Your task to perform on an android device: toggle notification dots Image 0: 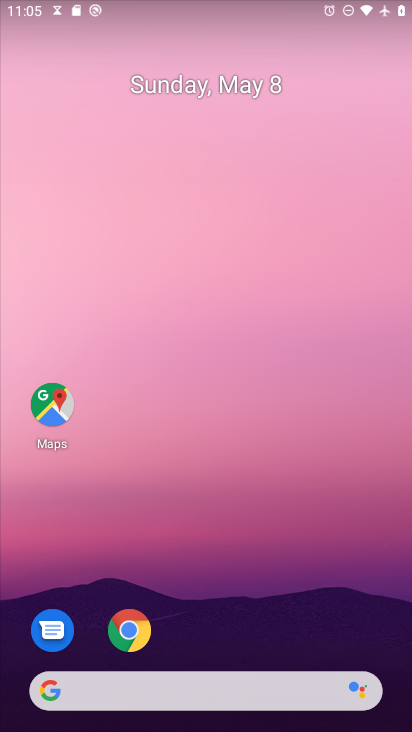
Step 0: drag from (213, 692) to (286, 78)
Your task to perform on an android device: toggle notification dots Image 1: 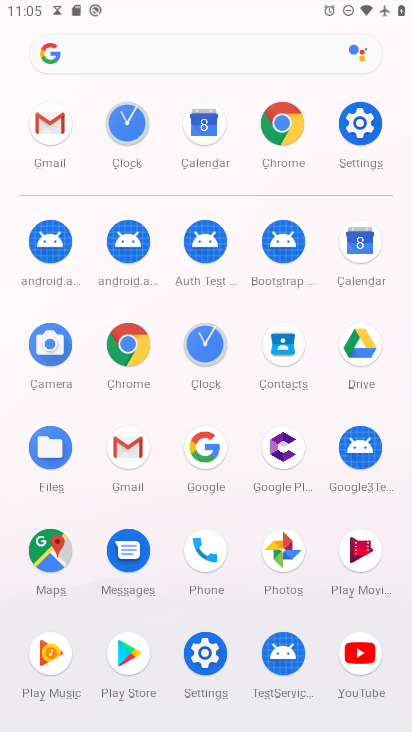
Step 1: click (358, 128)
Your task to perform on an android device: toggle notification dots Image 2: 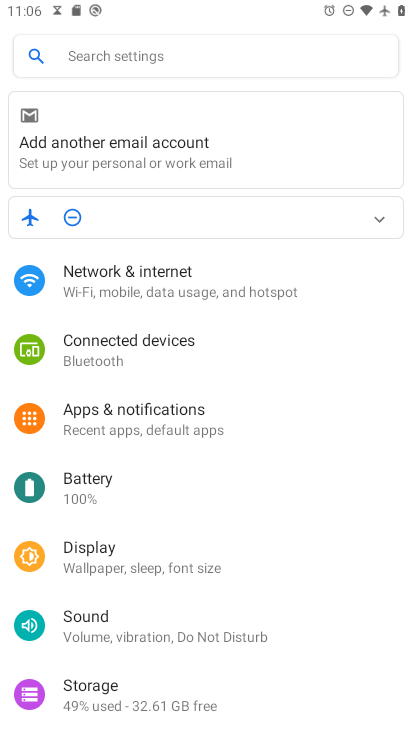
Step 2: click (178, 417)
Your task to perform on an android device: toggle notification dots Image 3: 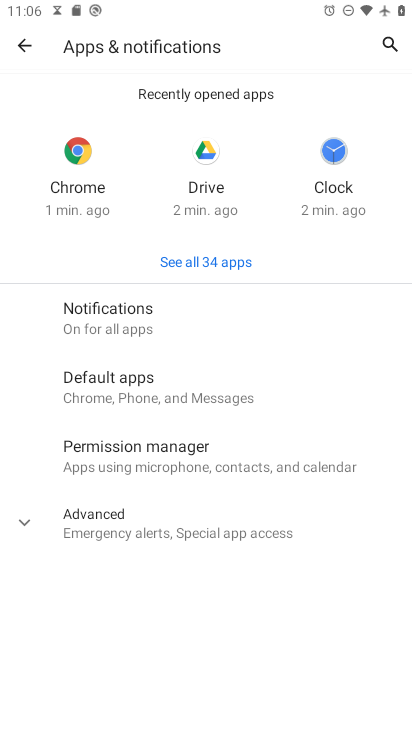
Step 3: click (135, 325)
Your task to perform on an android device: toggle notification dots Image 4: 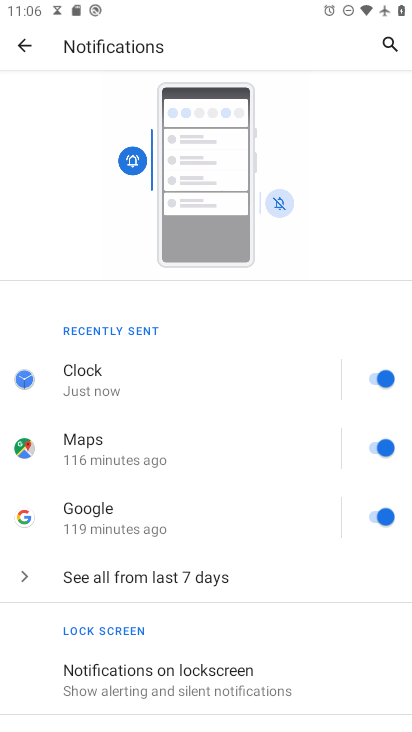
Step 4: drag from (181, 622) to (337, 211)
Your task to perform on an android device: toggle notification dots Image 5: 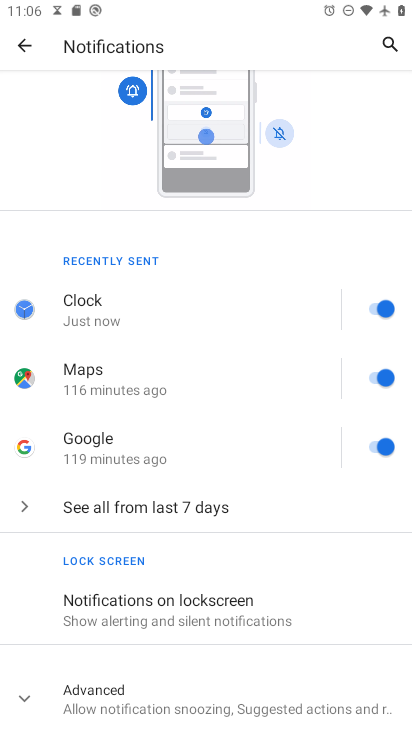
Step 5: click (117, 704)
Your task to perform on an android device: toggle notification dots Image 6: 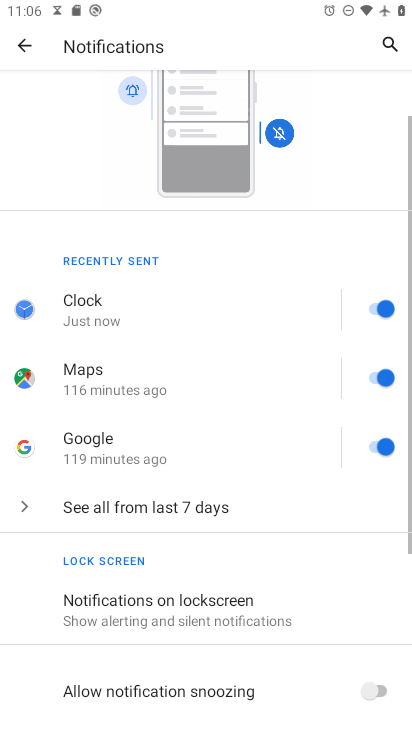
Step 6: drag from (154, 675) to (345, 158)
Your task to perform on an android device: toggle notification dots Image 7: 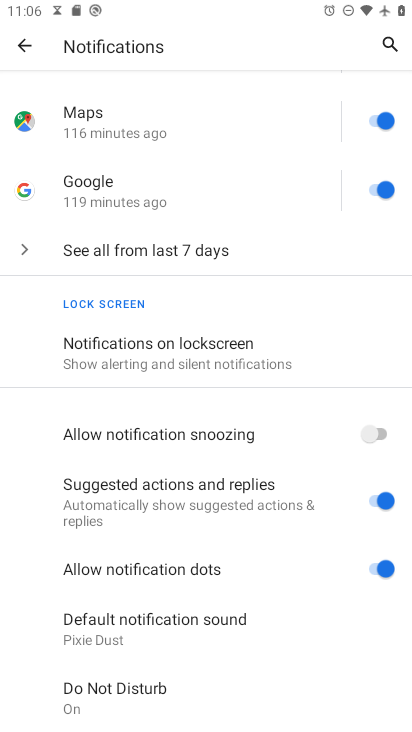
Step 7: click (377, 572)
Your task to perform on an android device: toggle notification dots Image 8: 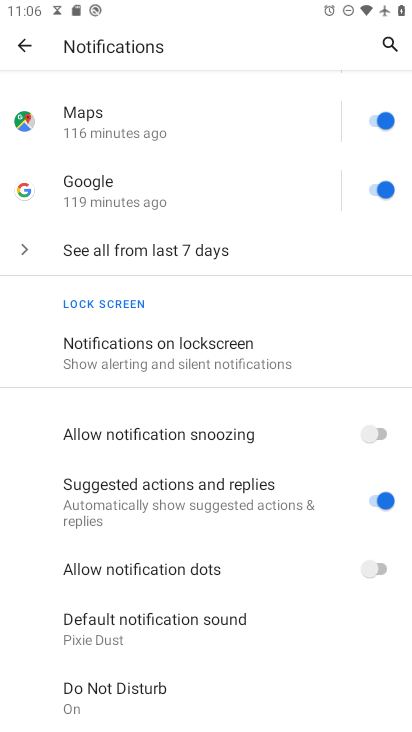
Step 8: task complete